Your task to perform on an android device: turn off priority inbox in the gmail app Image 0: 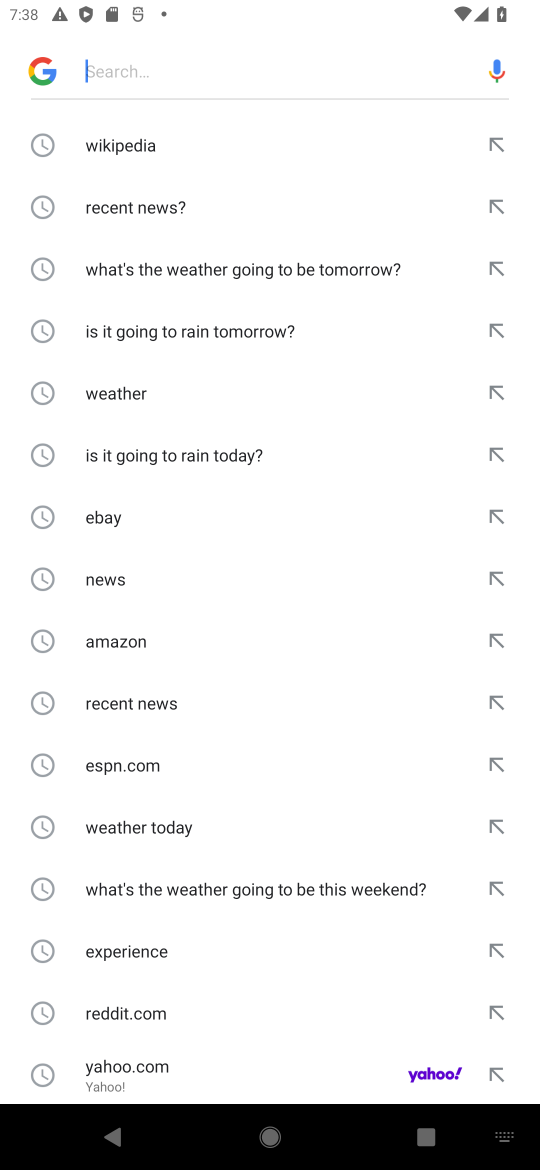
Step 0: press home button
Your task to perform on an android device: turn off priority inbox in the gmail app Image 1: 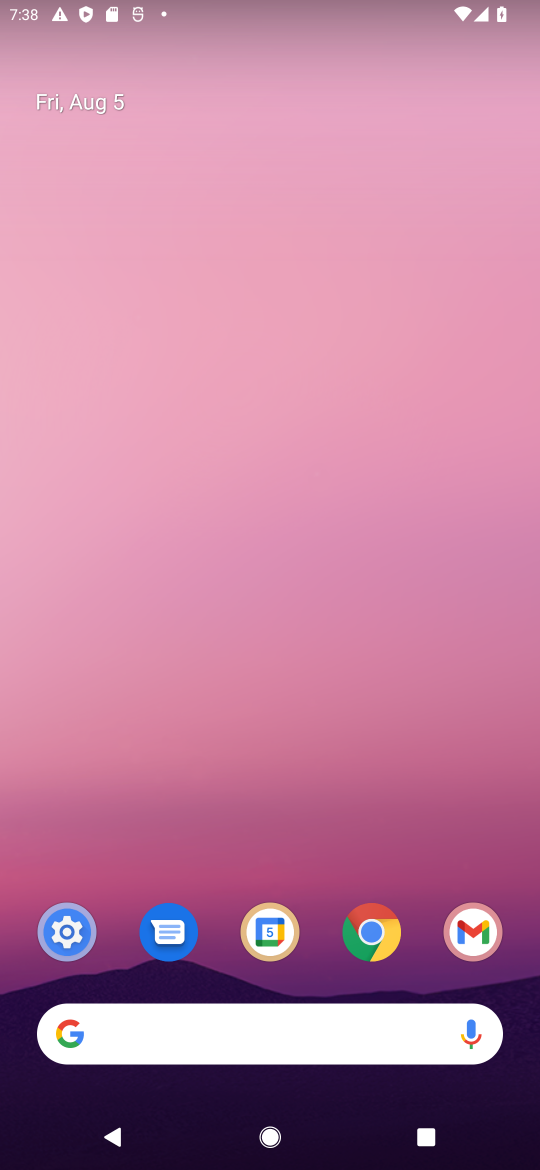
Step 1: drag from (238, 1041) to (195, 155)
Your task to perform on an android device: turn off priority inbox in the gmail app Image 2: 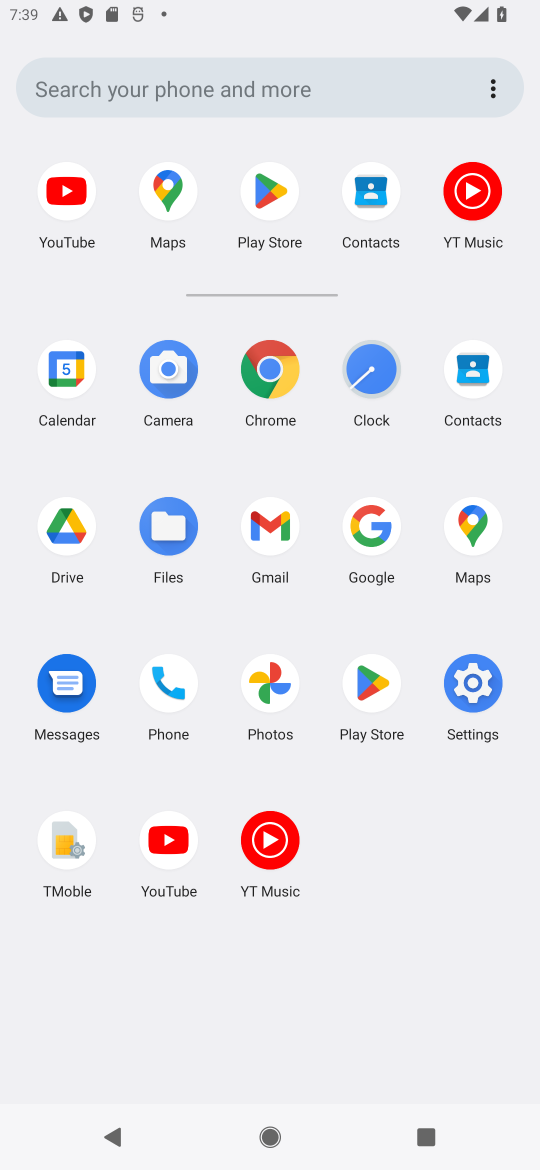
Step 2: click (265, 522)
Your task to perform on an android device: turn off priority inbox in the gmail app Image 3: 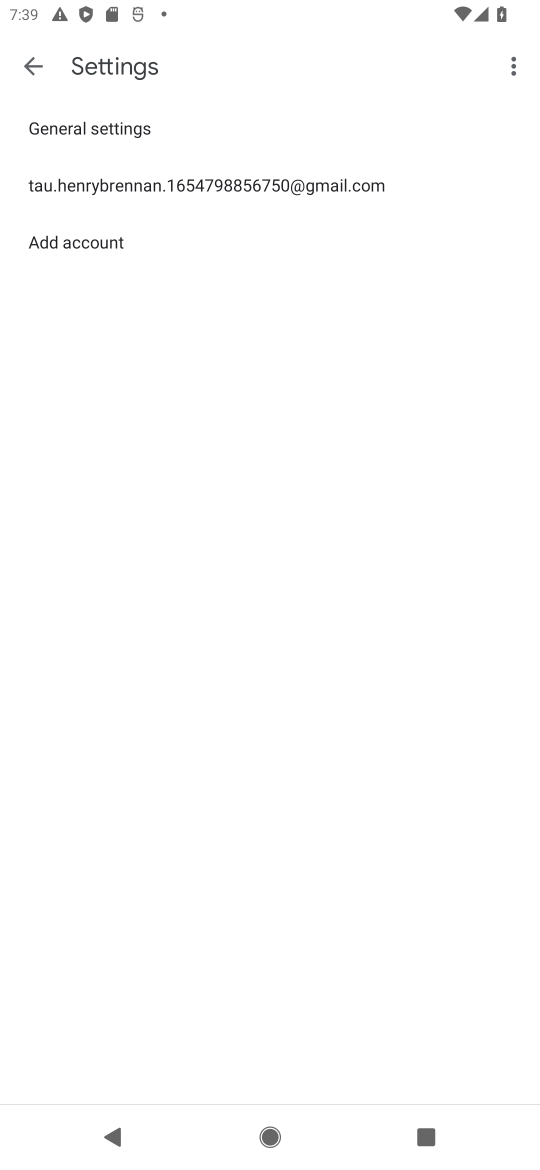
Step 3: click (282, 186)
Your task to perform on an android device: turn off priority inbox in the gmail app Image 4: 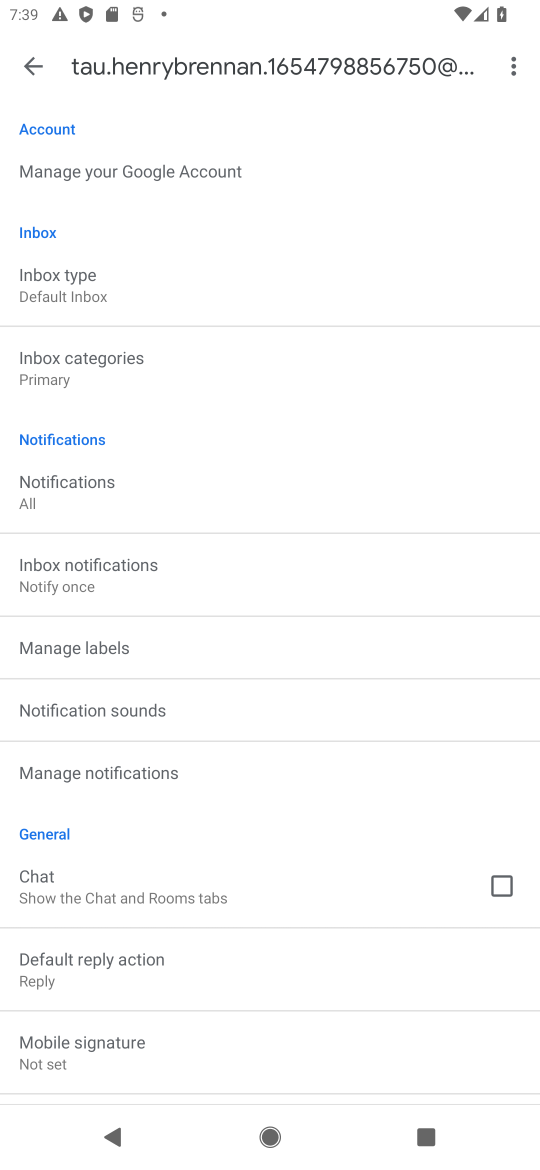
Step 4: task complete